Your task to perform on an android device: Go to CNN.com Image 0: 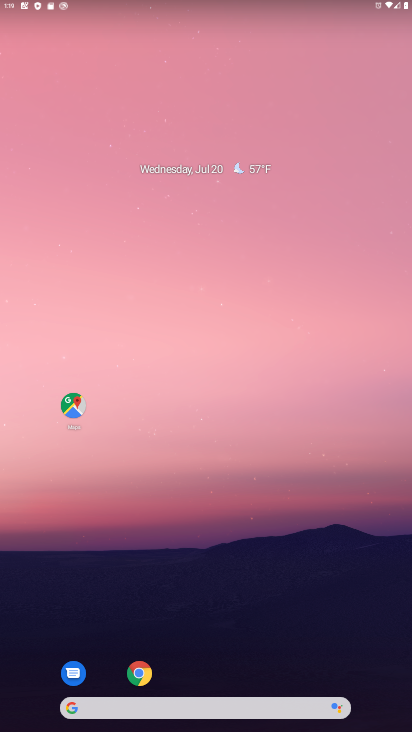
Step 0: click (140, 685)
Your task to perform on an android device: Go to CNN.com Image 1: 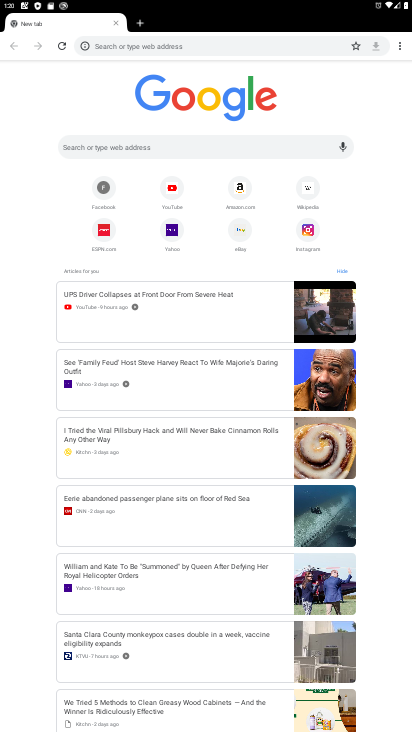
Step 1: click (207, 144)
Your task to perform on an android device: Go to CNN.com Image 2: 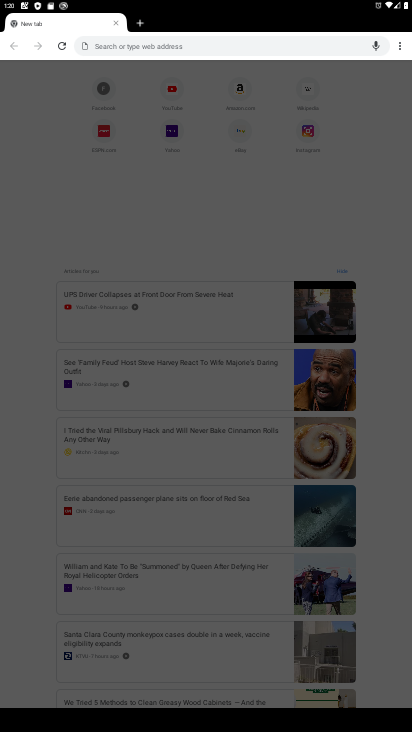
Step 2: type "cnn.com"
Your task to perform on an android device: Go to CNN.com Image 3: 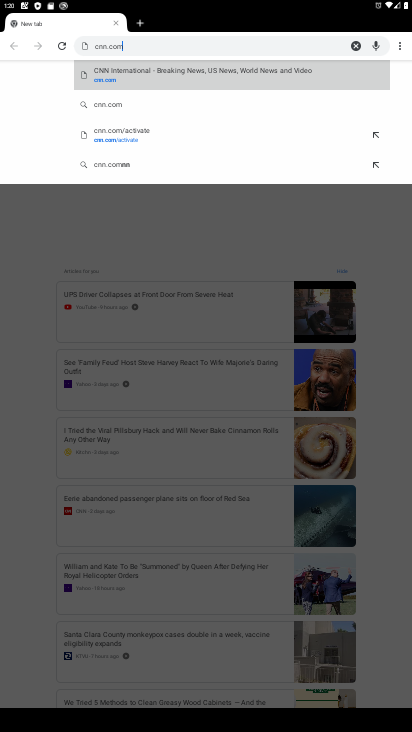
Step 3: click (232, 71)
Your task to perform on an android device: Go to CNN.com Image 4: 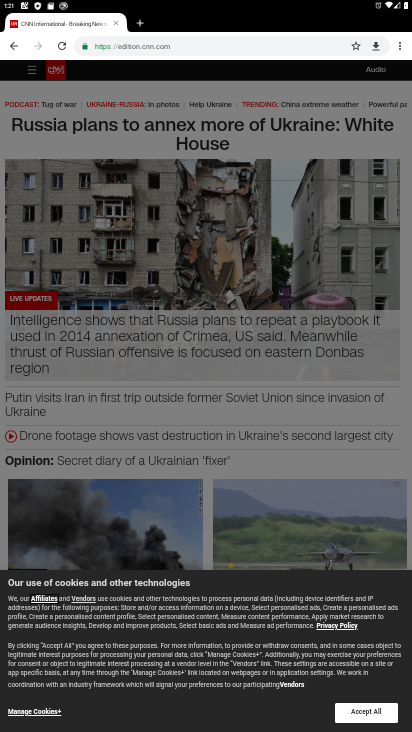
Step 4: task complete